Your task to perform on an android device: Go to Google Image 0: 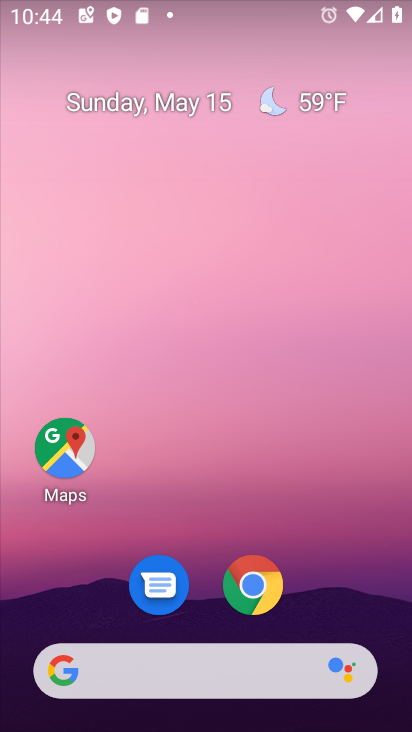
Step 0: click (187, 660)
Your task to perform on an android device: Go to Google Image 1: 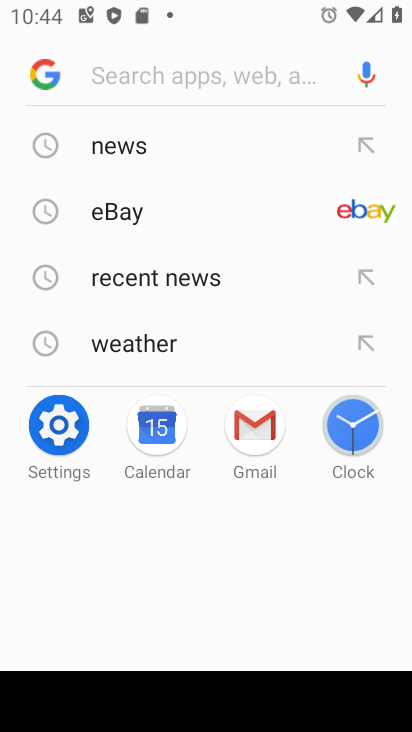
Step 1: click (40, 68)
Your task to perform on an android device: Go to Google Image 2: 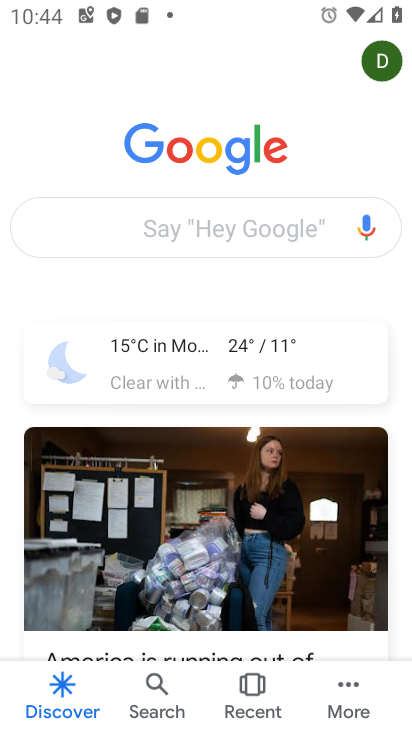
Step 2: task complete